Your task to perform on an android device: turn notification dots on Image 0: 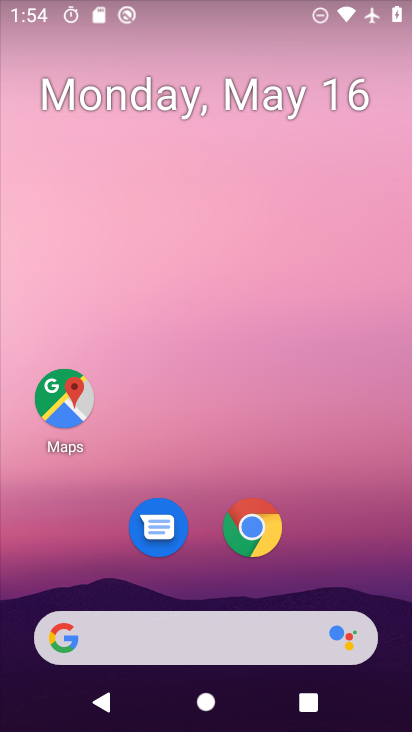
Step 0: press home button
Your task to perform on an android device: turn notification dots on Image 1: 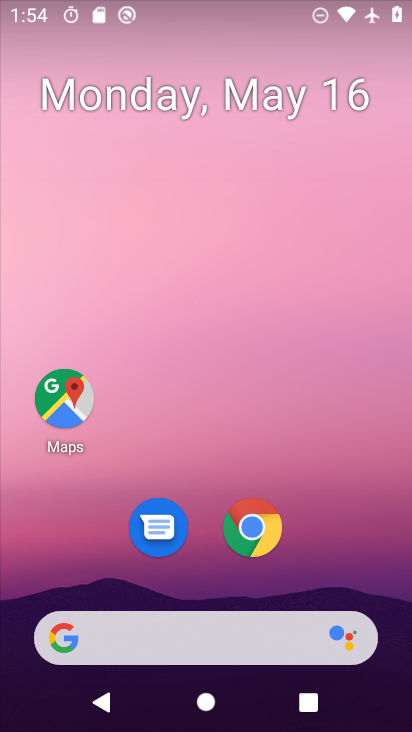
Step 1: drag from (222, 642) to (326, 178)
Your task to perform on an android device: turn notification dots on Image 2: 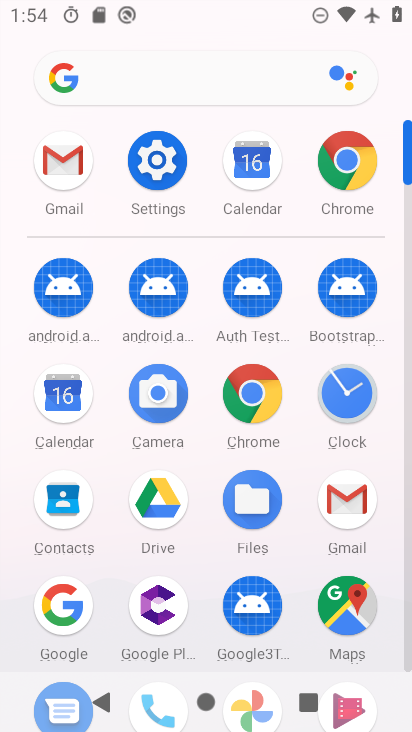
Step 2: click (171, 169)
Your task to perform on an android device: turn notification dots on Image 3: 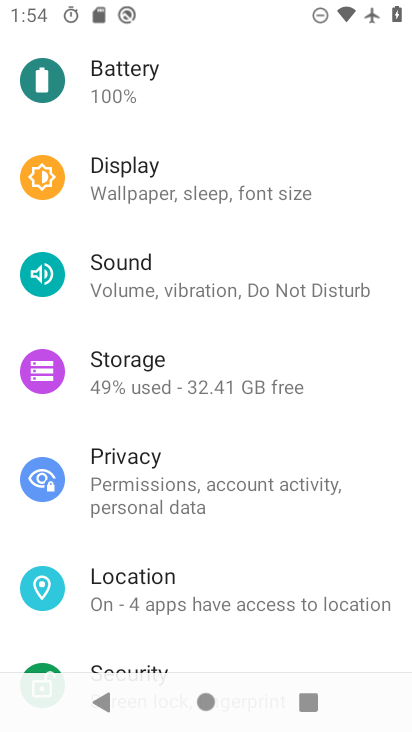
Step 3: drag from (301, 144) to (272, 480)
Your task to perform on an android device: turn notification dots on Image 4: 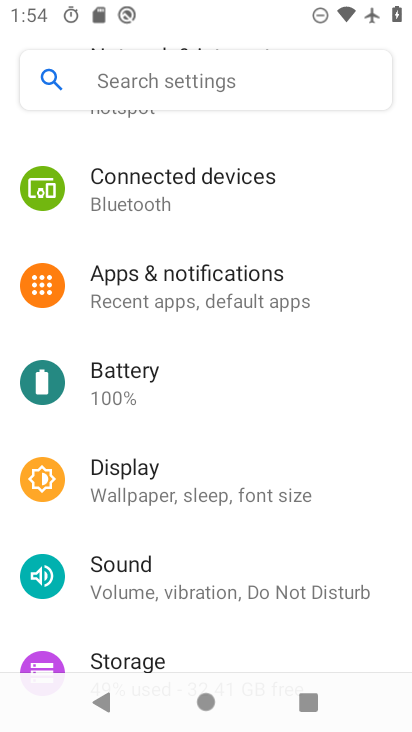
Step 4: click (234, 284)
Your task to perform on an android device: turn notification dots on Image 5: 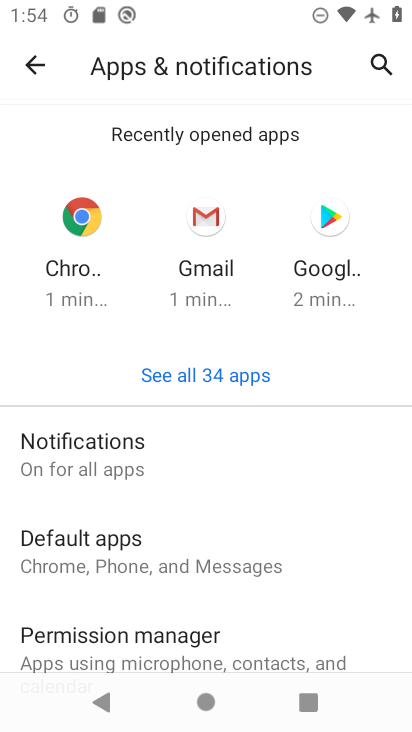
Step 5: click (98, 462)
Your task to perform on an android device: turn notification dots on Image 6: 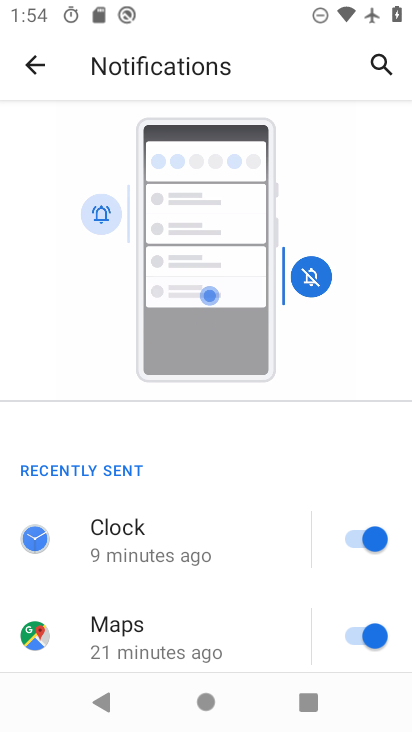
Step 6: drag from (154, 604) to (337, 164)
Your task to perform on an android device: turn notification dots on Image 7: 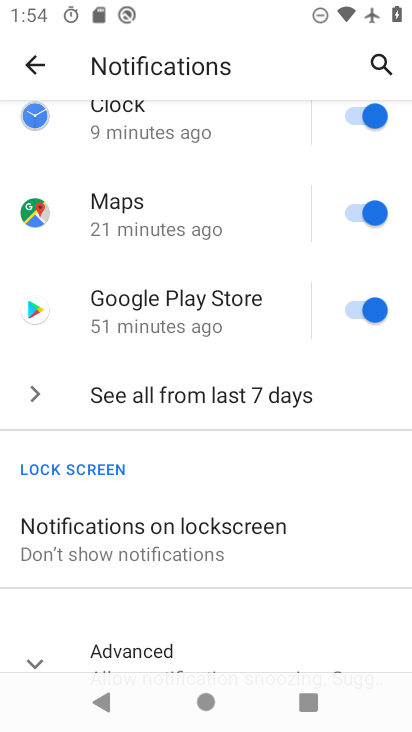
Step 7: drag from (234, 591) to (351, 238)
Your task to perform on an android device: turn notification dots on Image 8: 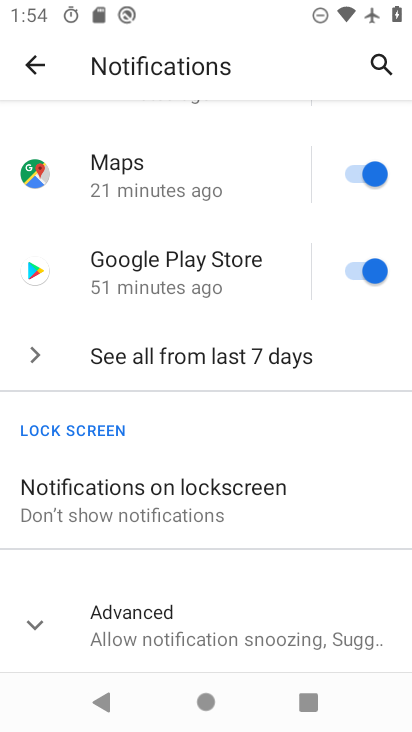
Step 8: click (175, 645)
Your task to perform on an android device: turn notification dots on Image 9: 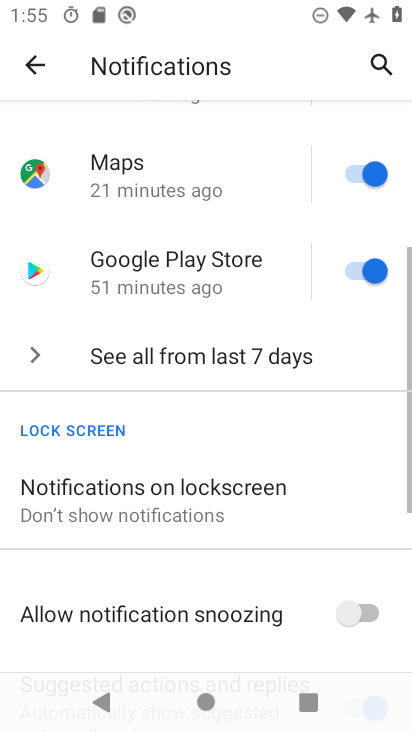
Step 9: drag from (191, 593) to (341, 56)
Your task to perform on an android device: turn notification dots on Image 10: 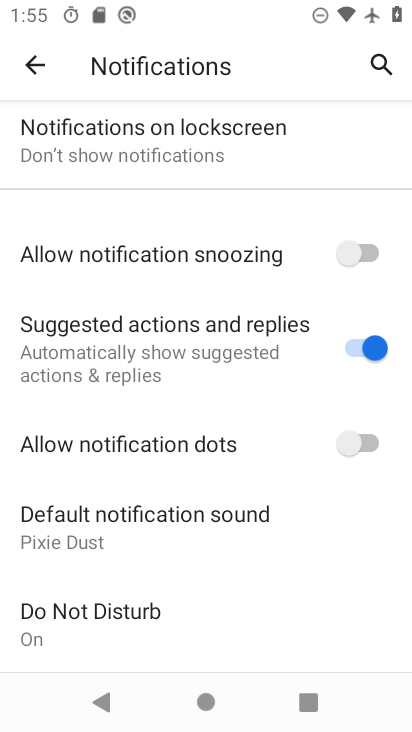
Step 10: click (374, 448)
Your task to perform on an android device: turn notification dots on Image 11: 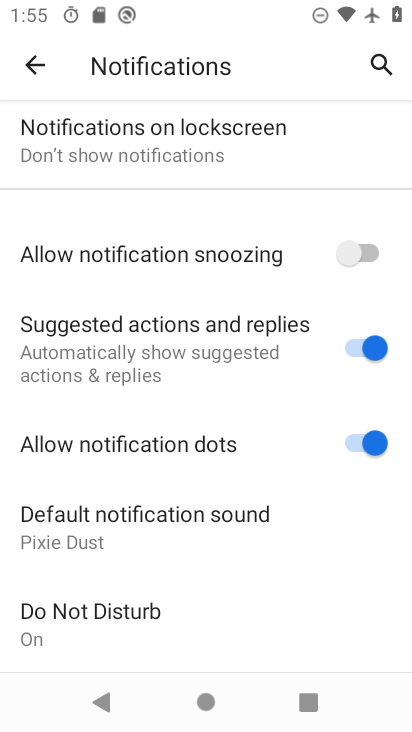
Step 11: task complete